Your task to perform on an android device: Open calendar and show me the first week of next month Image 0: 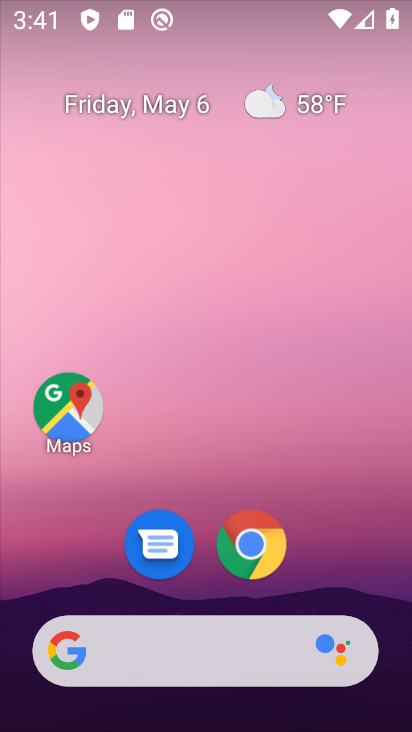
Step 0: drag from (105, 613) to (242, 73)
Your task to perform on an android device: Open calendar and show me the first week of next month Image 1: 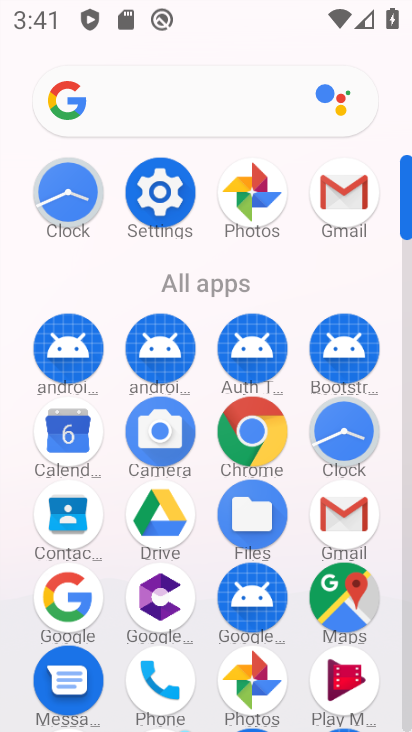
Step 1: drag from (168, 625) to (217, 345)
Your task to perform on an android device: Open calendar and show me the first week of next month Image 2: 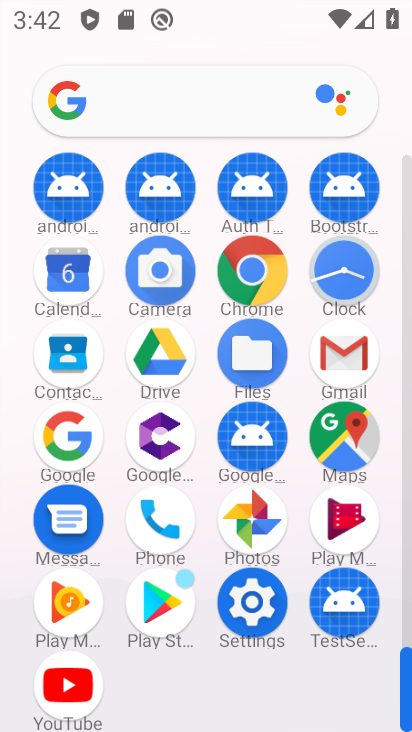
Step 2: click (54, 270)
Your task to perform on an android device: Open calendar and show me the first week of next month Image 3: 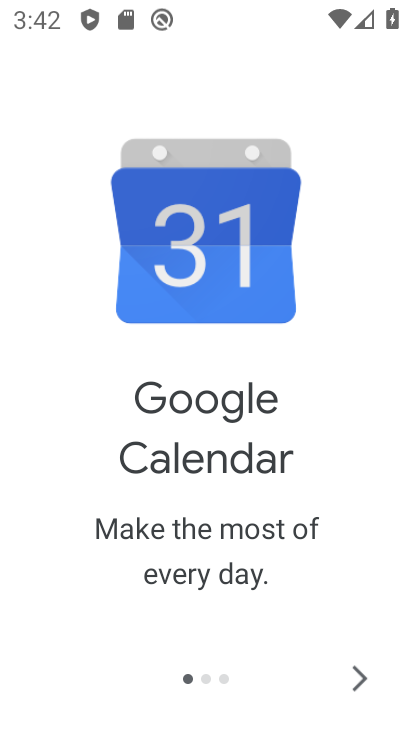
Step 3: click (360, 676)
Your task to perform on an android device: Open calendar and show me the first week of next month Image 4: 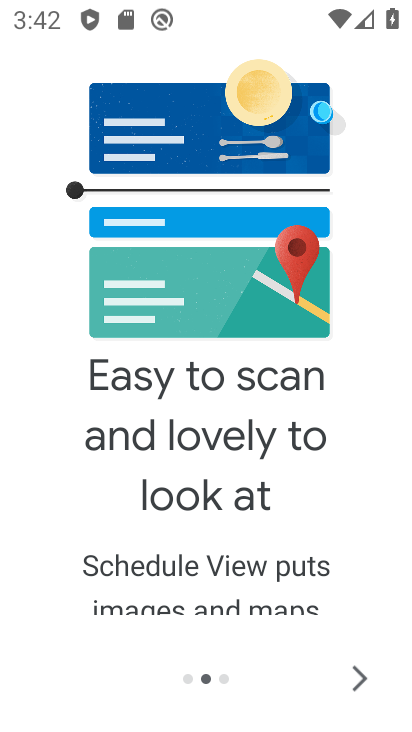
Step 4: click (356, 673)
Your task to perform on an android device: Open calendar and show me the first week of next month Image 5: 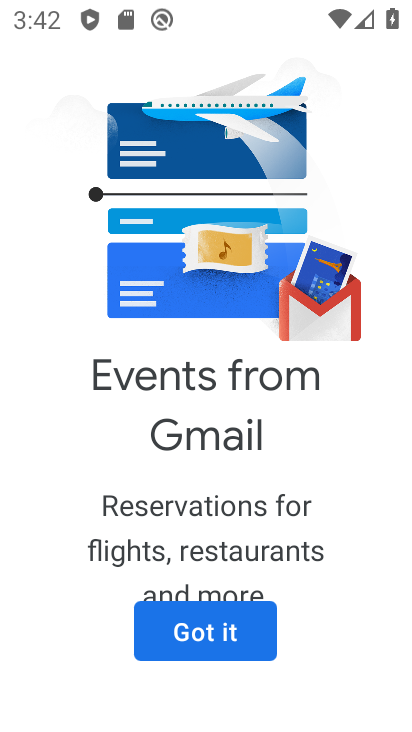
Step 5: click (176, 625)
Your task to perform on an android device: Open calendar and show me the first week of next month Image 6: 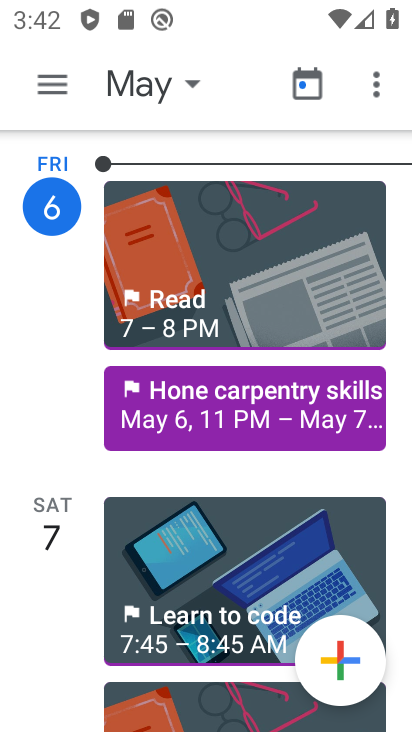
Step 6: click (178, 94)
Your task to perform on an android device: Open calendar and show me the first week of next month Image 7: 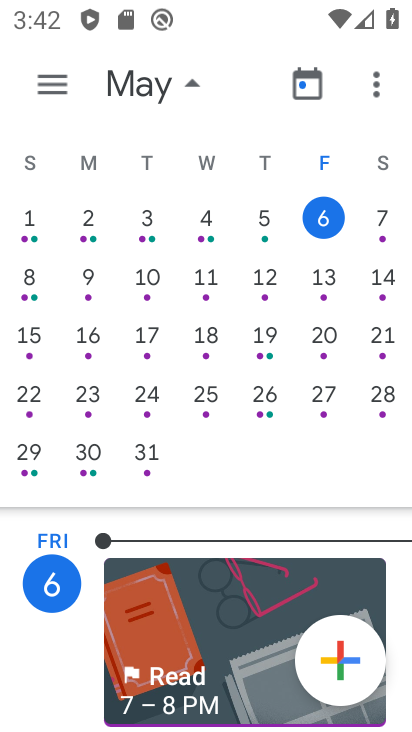
Step 7: drag from (276, 366) to (0, 398)
Your task to perform on an android device: Open calendar and show me the first week of next month Image 8: 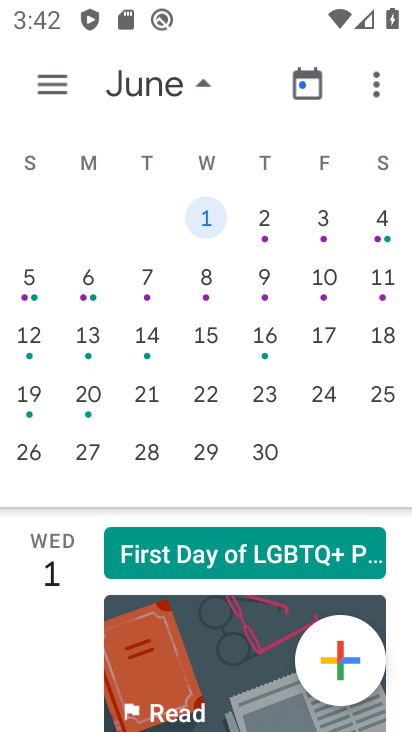
Step 8: click (206, 221)
Your task to perform on an android device: Open calendar and show me the first week of next month Image 9: 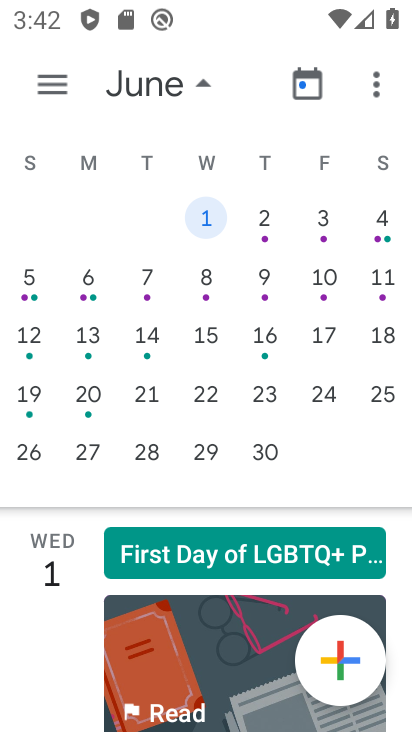
Step 9: click (34, 280)
Your task to perform on an android device: Open calendar and show me the first week of next month Image 10: 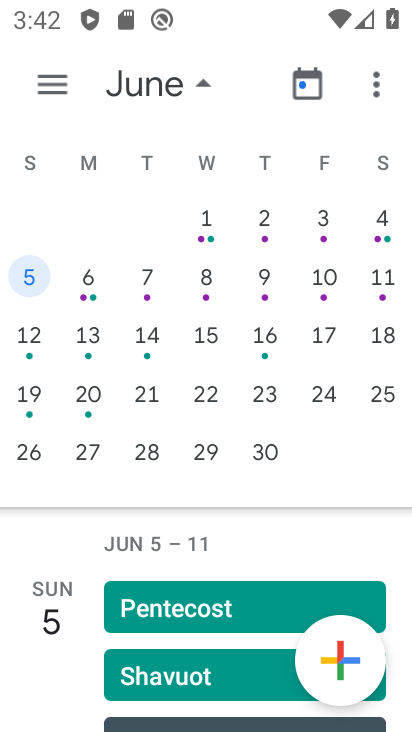
Step 10: click (37, 90)
Your task to perform on an android device: Open calendar and show me the first week of next month Image 11: 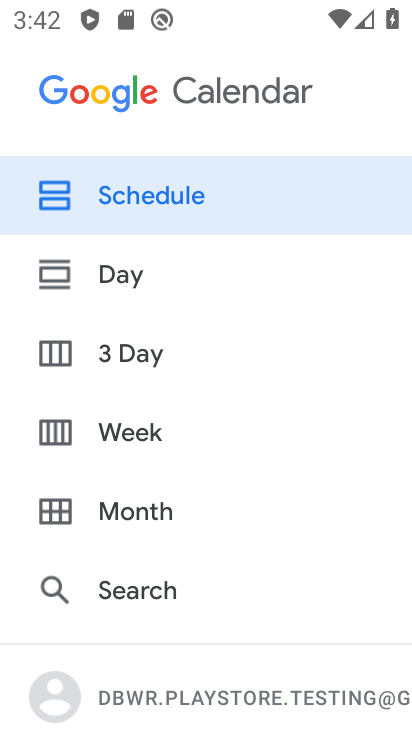
Step 11: click (151, 435)
Your task to perform on an android device: Open calendar and show me the first week of next month Image 12: 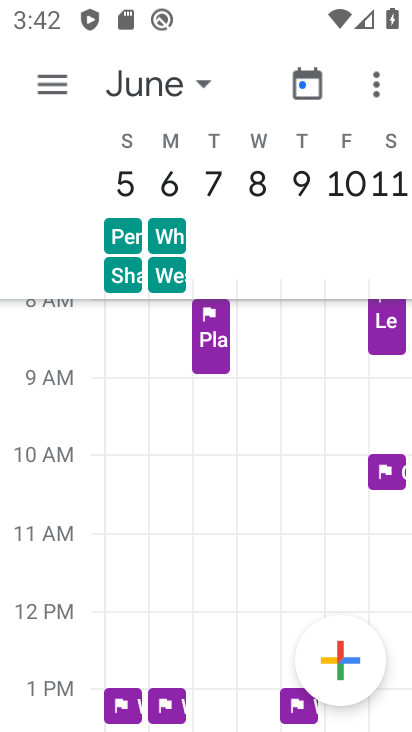
Step 12: task complete